Your task to perform on an android device: turn on location history Image 0: 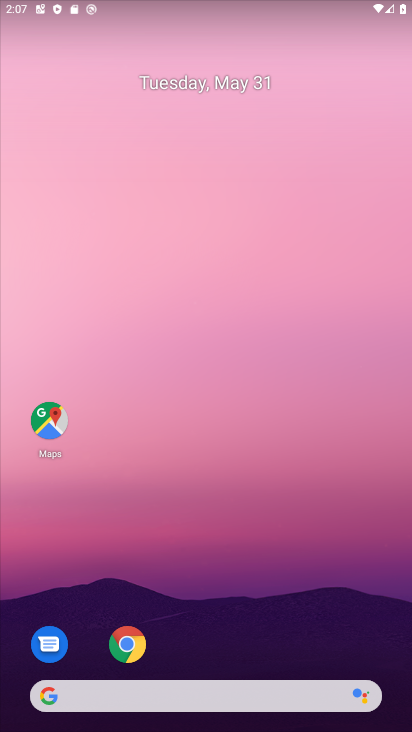
Step 0: drag from (404, 688) to (371, 133)
Your task to perform on an android device: turn on location history Image 1: 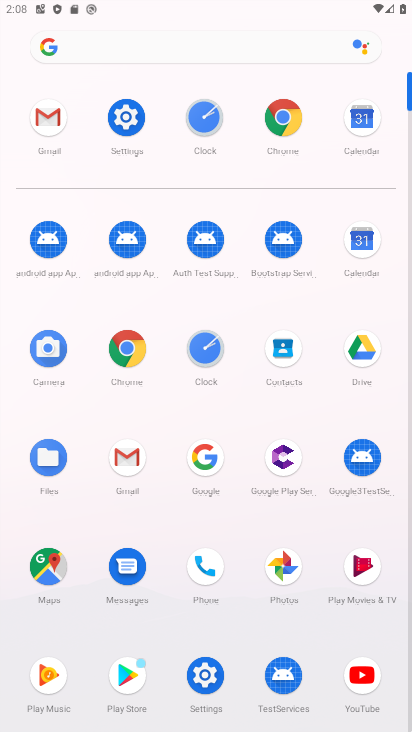
Step 1: click (138, 126)
Your task to perform on an android device: turn on location history Image 2: 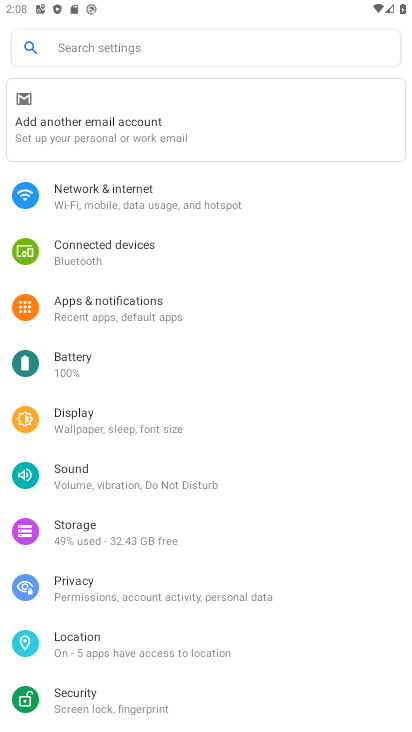
Step 2: click (59, 637)
Your task to perform on an android device: turn on location history Image 3: 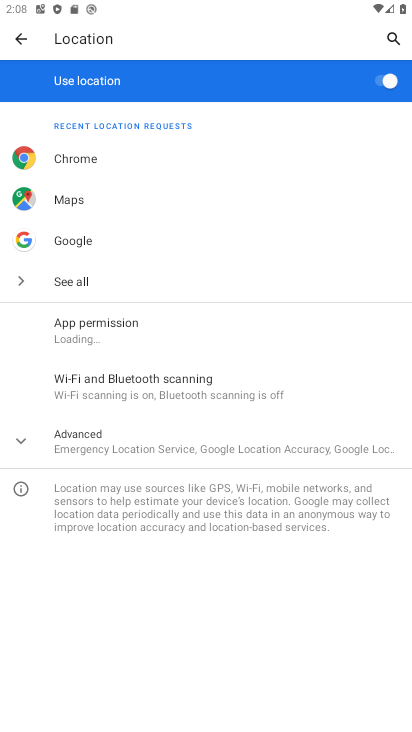
Step 3: click (24, 440)
Your task to perform on an android device: turn on location history Image 4: 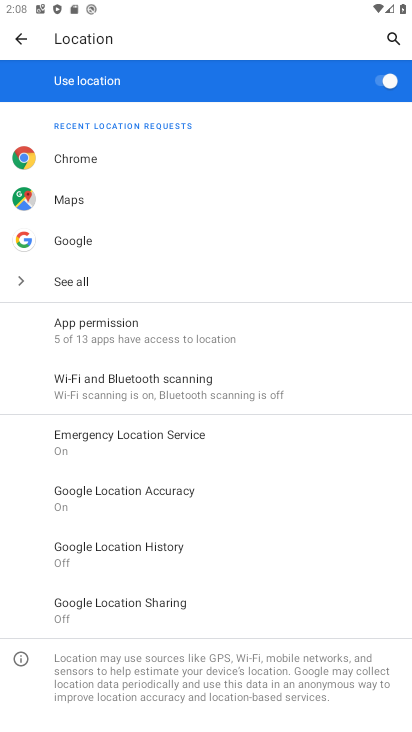
Step 4: click (90, 548)
Your task to perform on an android device: turn on location history Image 5: 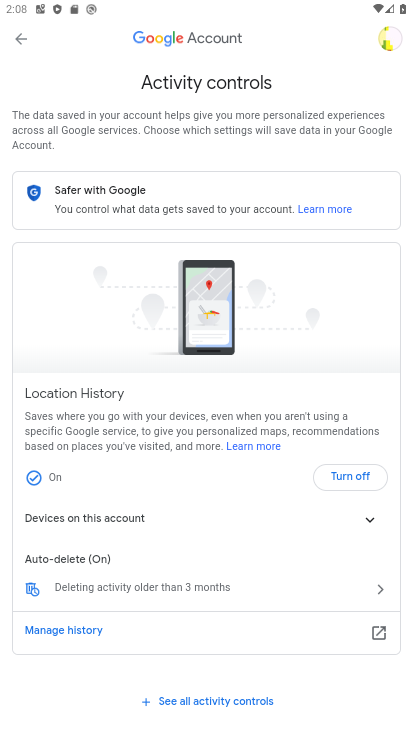
Step 5: click (343, 477)
Your task to perform on an android device: turn on location history Image 6: 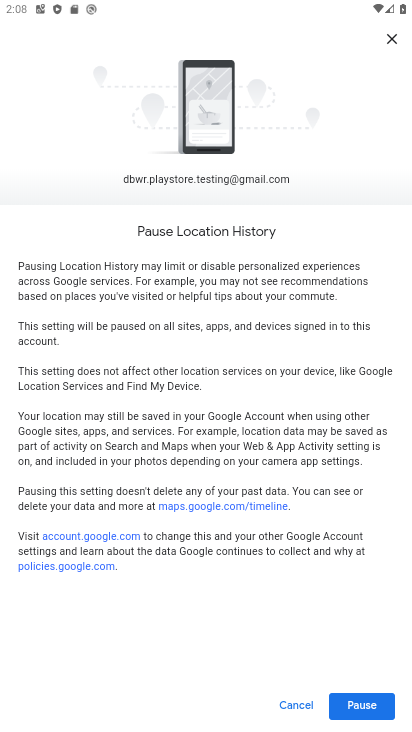
Step 6: click (348, 703)
Your task to perform on an android device: turn on location history Image 7: 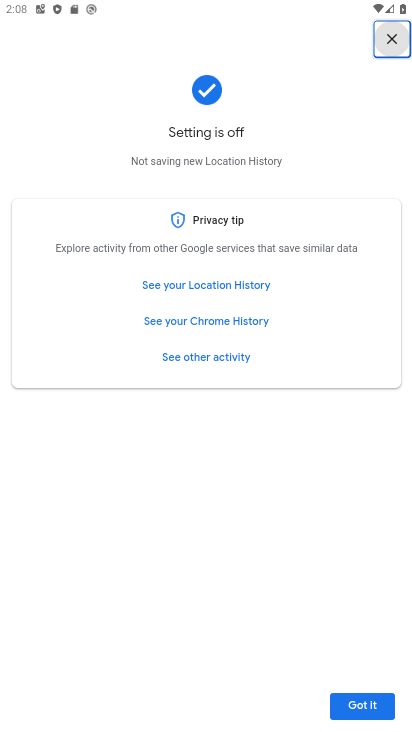
Step 7: click (355, 708)
Your task to perform on an android device: turn on location history Image 8: 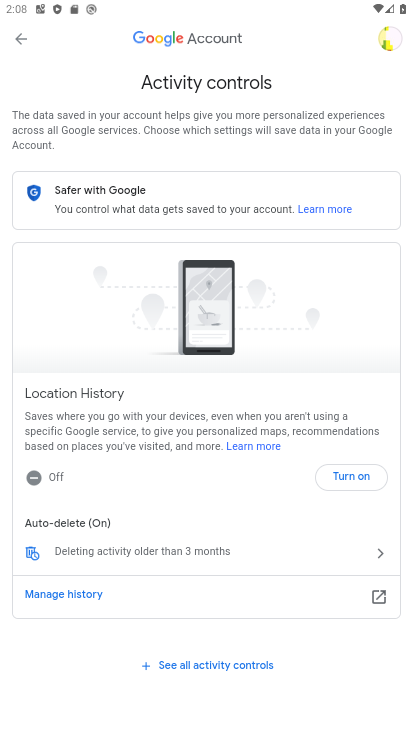
Step 8: task complete